Your task to perform on an android device: Open notification settings Image 0: 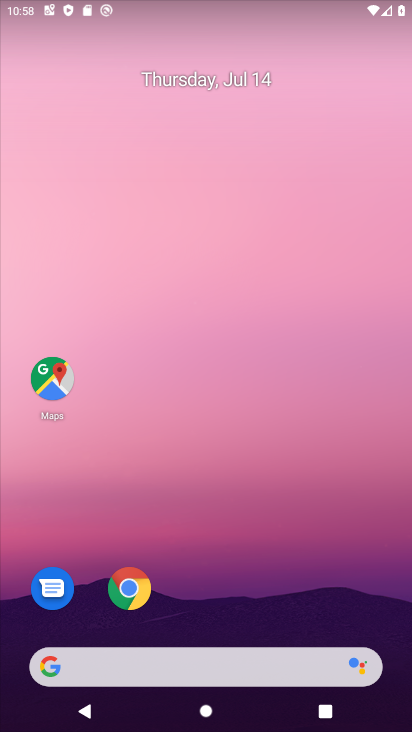
Step 0: drag from (389, 650) to (358, 97)
Your task to perform on an android device: Open notification settings Image 1: 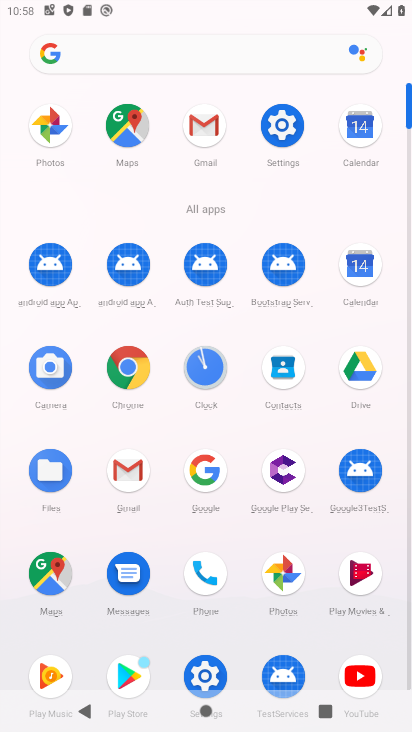
Step 1: click (203, 675)
Your task to perform on an android device: Open notification settings Image 2: 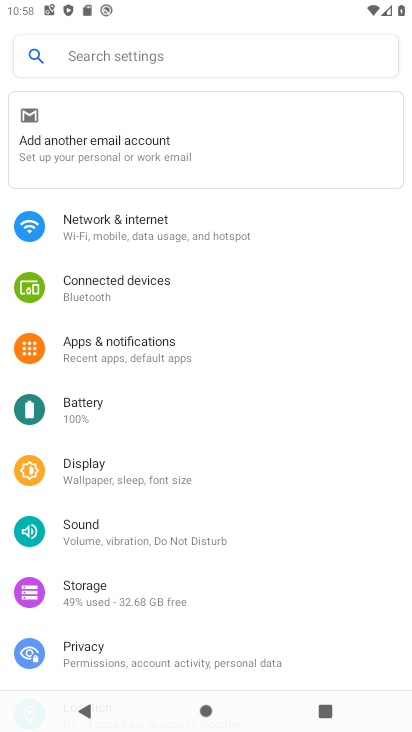
Step 2: click (112, 346)
Your task to perform on an android device: Open notification settings Image 3: 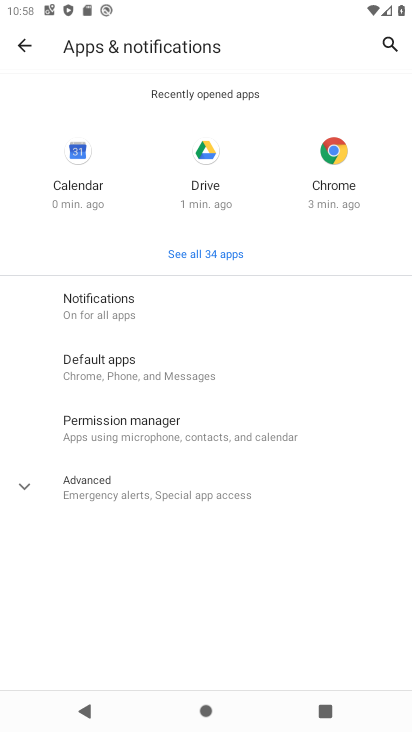
Step 3: click (83, 303)
Your task to perform on an android device: Open notification settings Image 4: 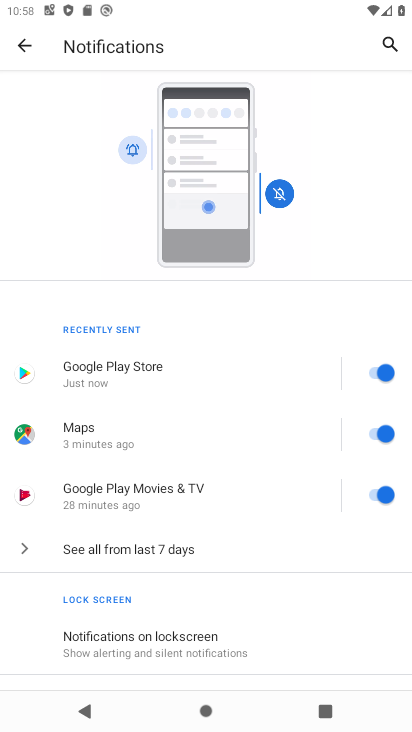
Step 4: drag from (261, 563) to (268, 215)
Your task to perform on an android device: Open notification settings Image 5: 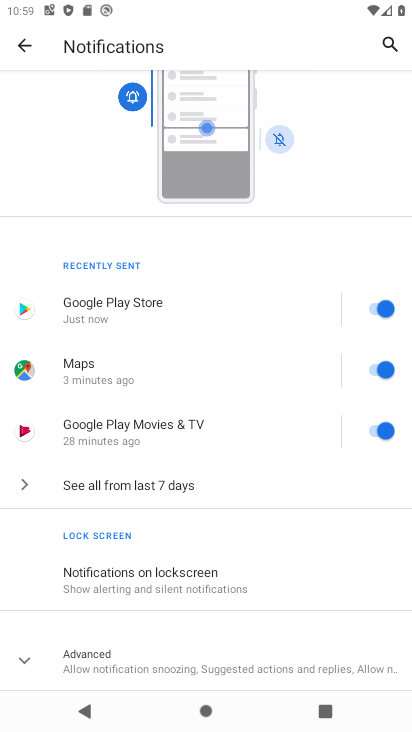
Step 5: click (22, 660)
Your task to perform on an android device: Open notification settings Image 6: 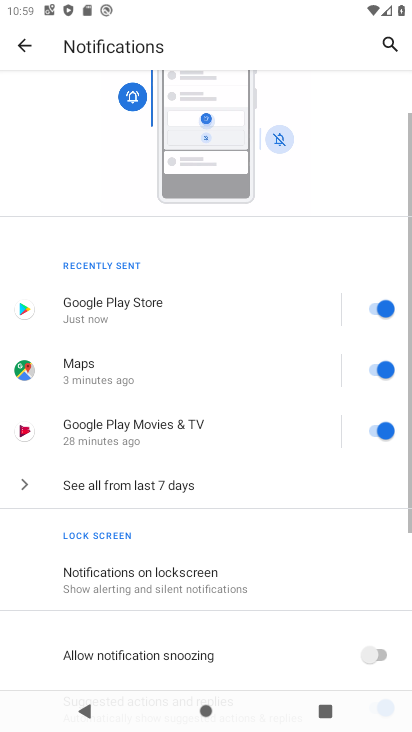
Step 6: task complete